Your task to perform on an android device: Do I have any events today? Image 0: 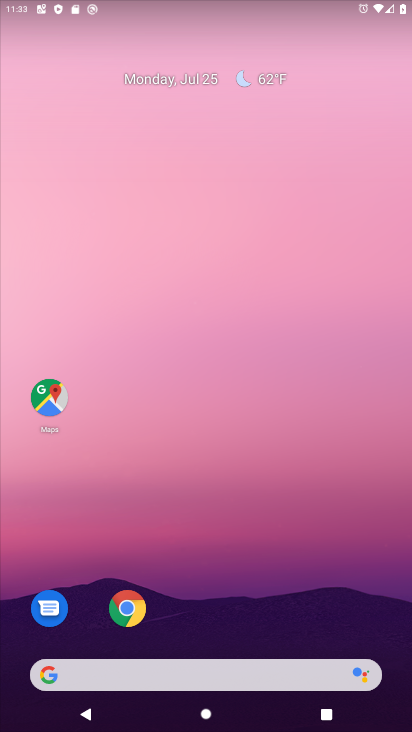
Step 0: drag from (218, 588) to (216, 179)
Your task to perform on an android device: Do I have any events today? Image 1: 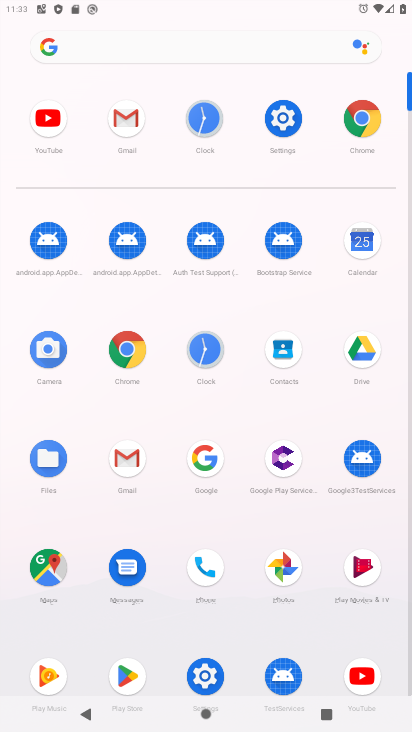
Step 1: click (366, 243)
Your task to perform on an android device: Do I have any events today? Image 2: 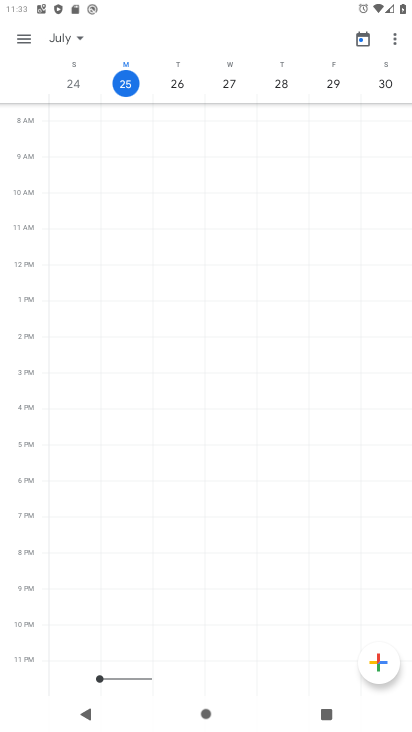
Step 2: click (24, 30)
Your task to perform on an android device: Do I have any events today? Image 3: 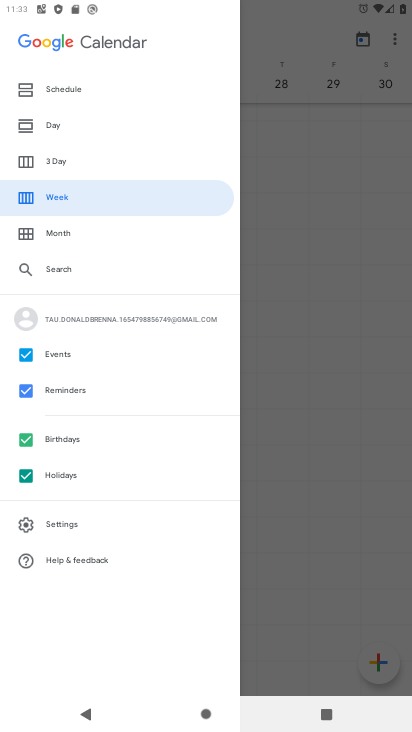
Step 3: click (54, 376)
Your task to perform on an android device: Do I have any events today? Image 4: 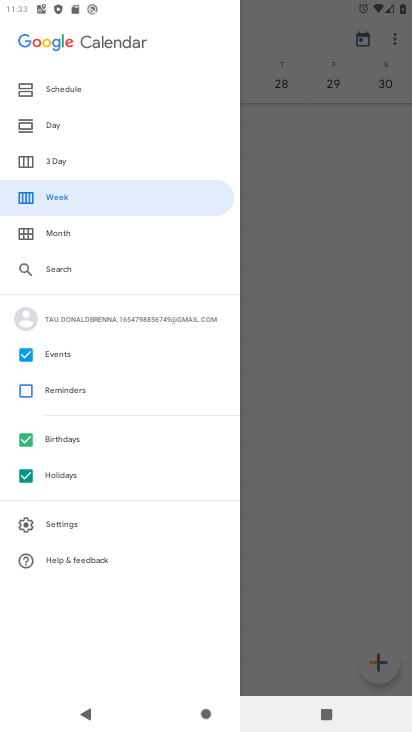
Step 4: click (69, 435)
Your task to perform on an android device: Do I have any events today? Image 5: 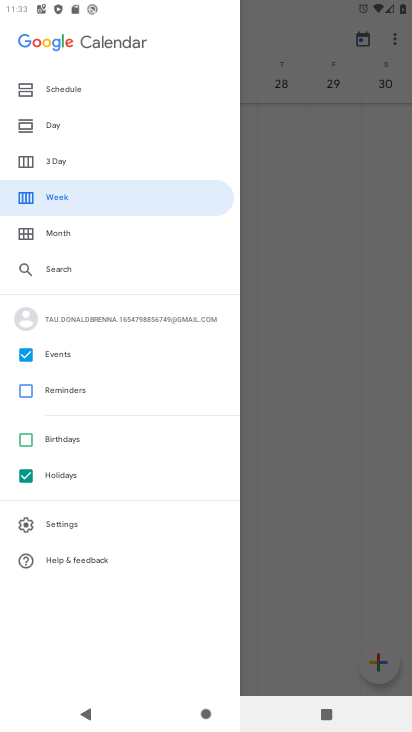
Step 5: click (63, 481)
Your task to perform on an android device: Do I have any events today? Image 6: 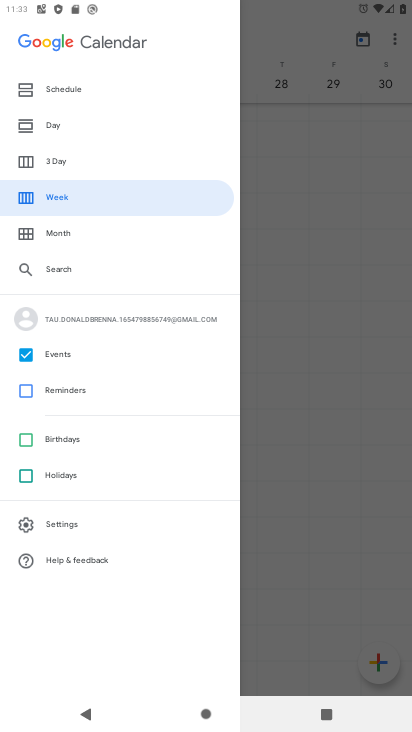
Step 6: click (71, 119)
Your task to perform on an android device: Do I have any events today? Image 7: 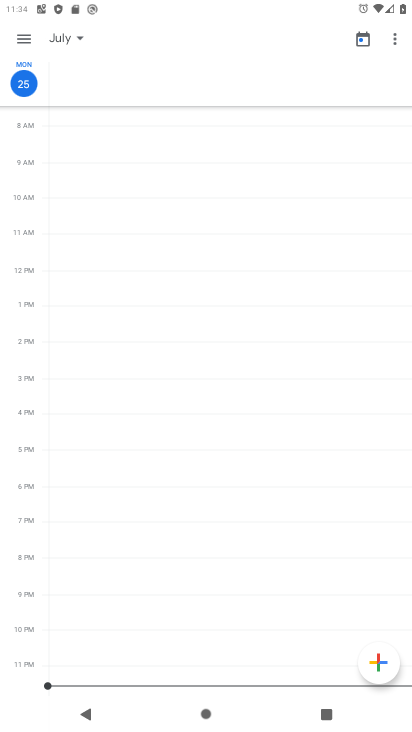
Step 7: task complete